Your task to perform on an android device: Go to Yahoo.com Image 0: 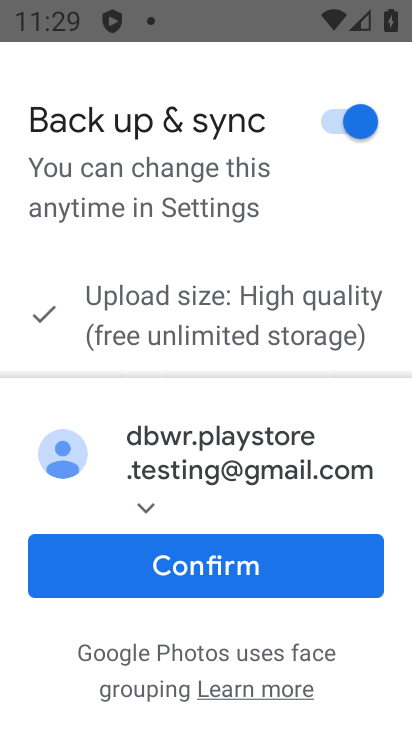
Step 0: press home button
Your task to perform on an android device: Go to Yahoo.com Image 1: 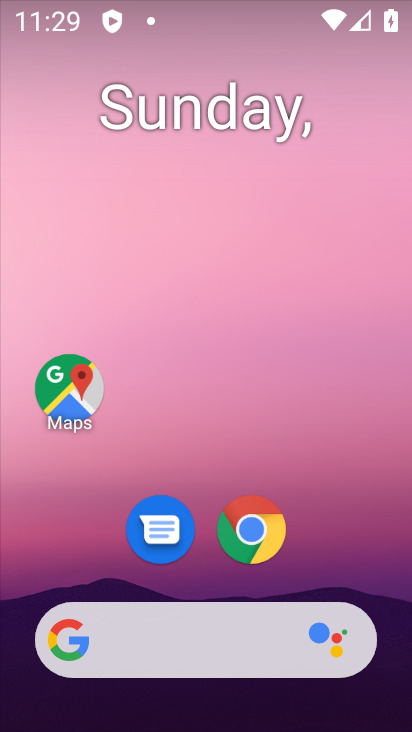
Step 1: drag from (356, 531) to (356, 218)
Your task to perform on an android device: Go to Yahoo.com Image 2: 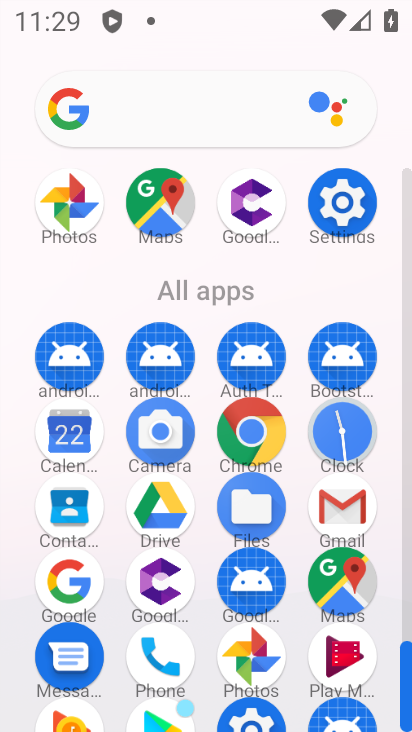
Step 2: click (283, 446)
Your task to perform on an android device: Go to Yahoo.com Image 3: 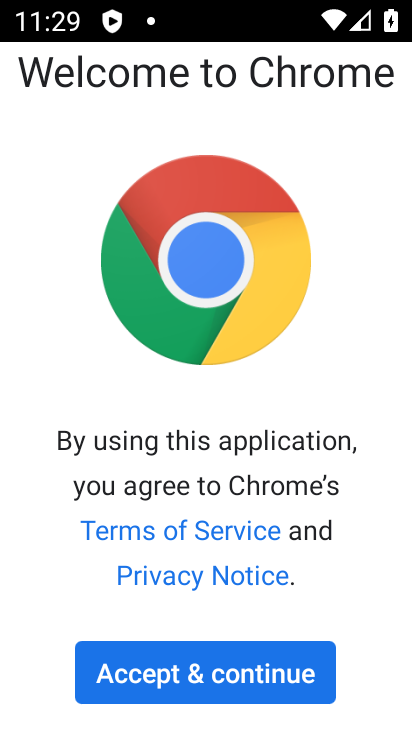
Step 3: click (257, 661)
Your task to perform on an android device: Go to Yahoo.com Image 4: 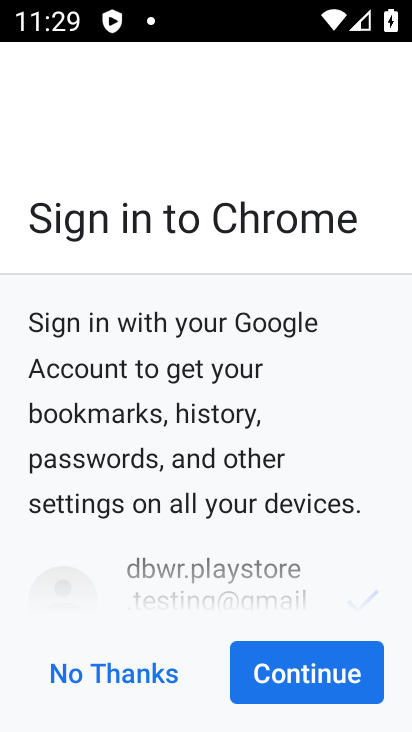
Step 4: click (260, 664)
Your task to perform on an android device: Go to Yahoo.com Image 5: 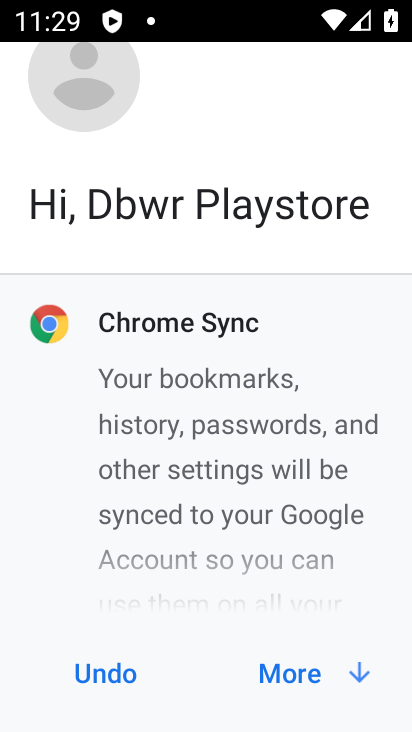
Step 5: click (260, 664)
Your task to perform on an android device: Go to Yahoo.com Image 6: 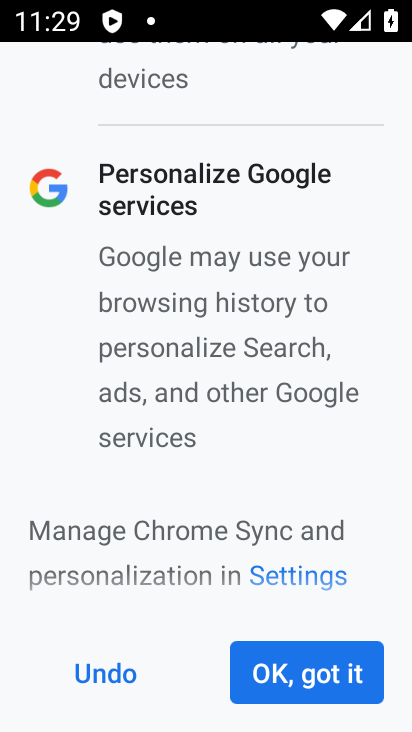
Step 6: click (277, 671)
Your task to perform on an android device: Go to Yahoo.com Image 7: 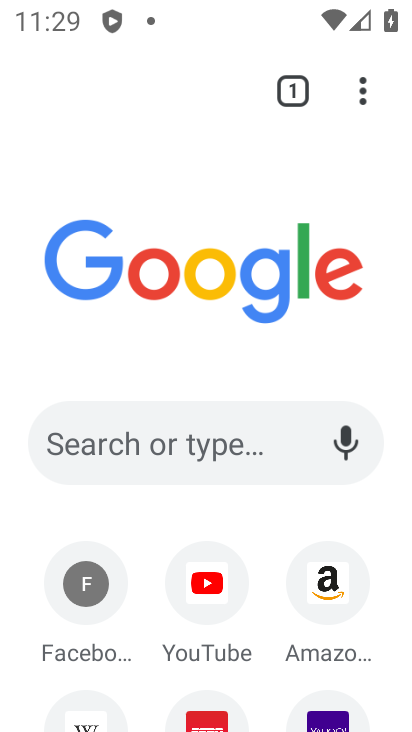
Step 7: drag from (385, 538) to (391, 379)
Your task to perform on an android device: Go to Yahoo.com Image 8: 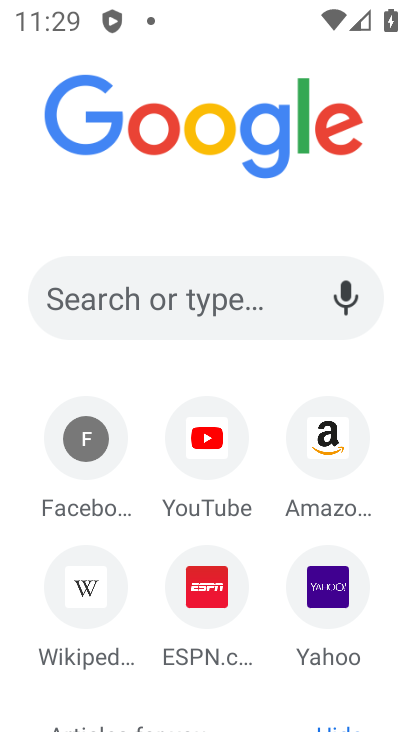
Step 8: click (332, 633)
Your task to perform on an android device: Go to Yahoo.com Image 9: 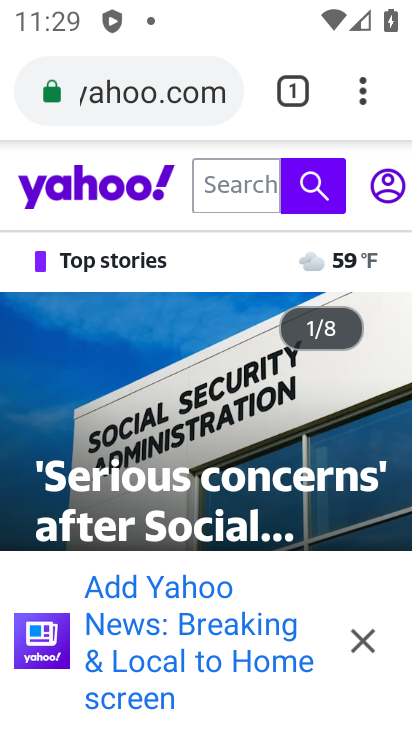
Step 9: task complete